Your task to perform on an android device: Go to network settings Image 0: 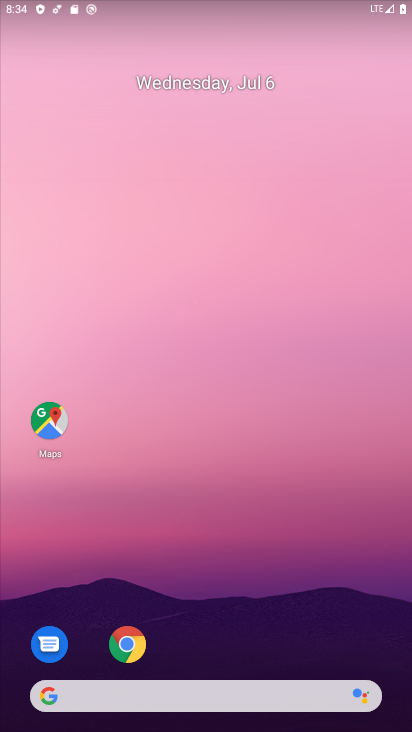
Step 0: drag from (229, 647) to (212, 166)
Your task to perform on an android device: Go to network settings Image 1: 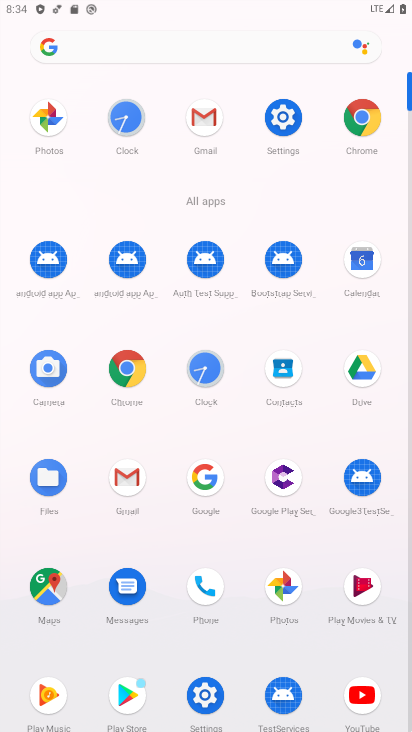
Step 1: click (286, 121)
Your task to perform on an android device: Go to network settings Image 2: 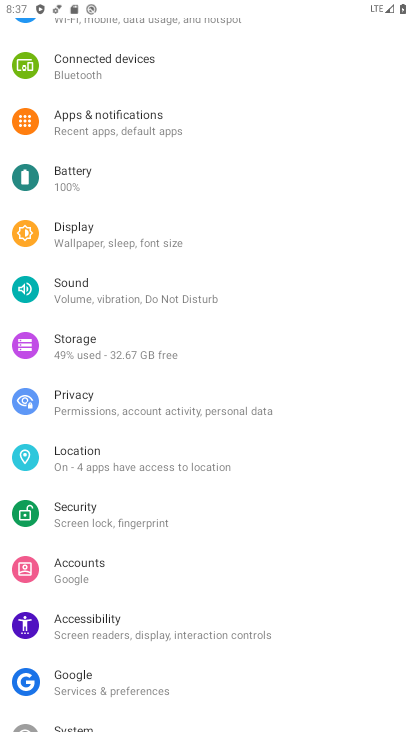
Step 2: drag from (170, 177) to (170, 641)
Your task to perform on an android device: Go to network settings Image 3: 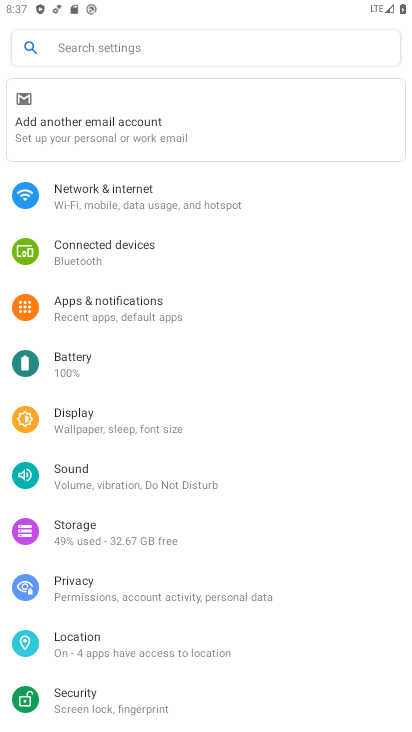
Step 3: click (144, 199)
Your task to perform on an android device: Go to network settings Image 4: 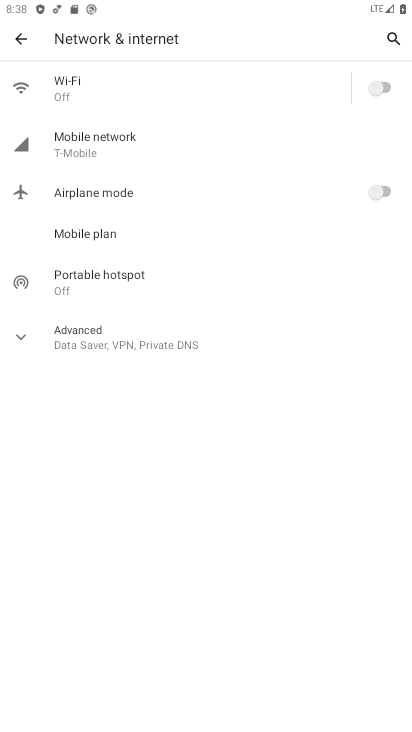
Step 4: task complete